Your task to perform on an android device: Go to sound settings Image 0: 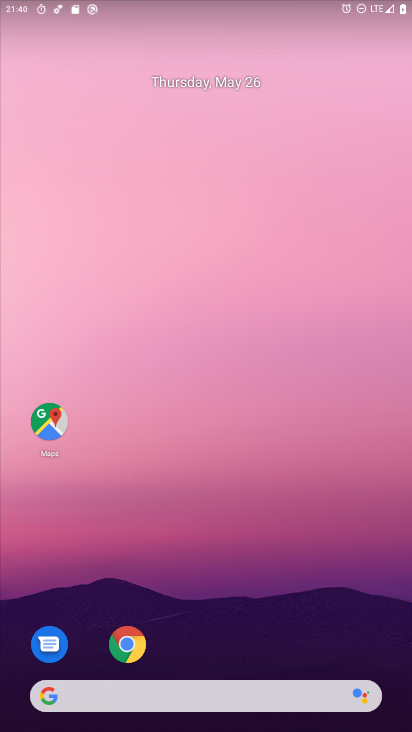
Step 0: drag from (198, 691) to (272, 271)
Your task to perform on an android device: Go to sound settings Image 1: 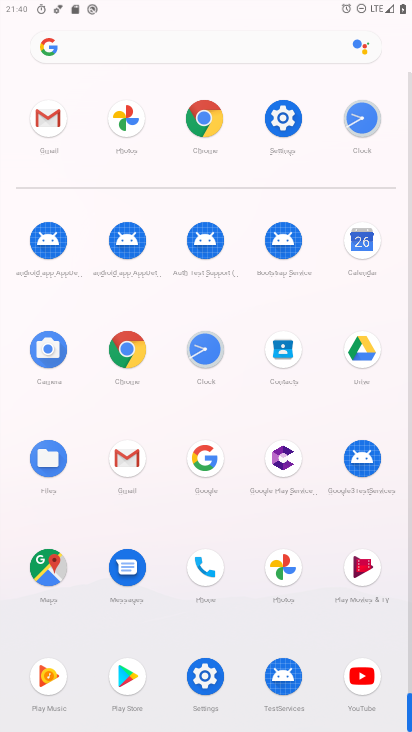
Step 1: click (280, 116)
Your task to perform on an android device: Go to sound settings Image 2: 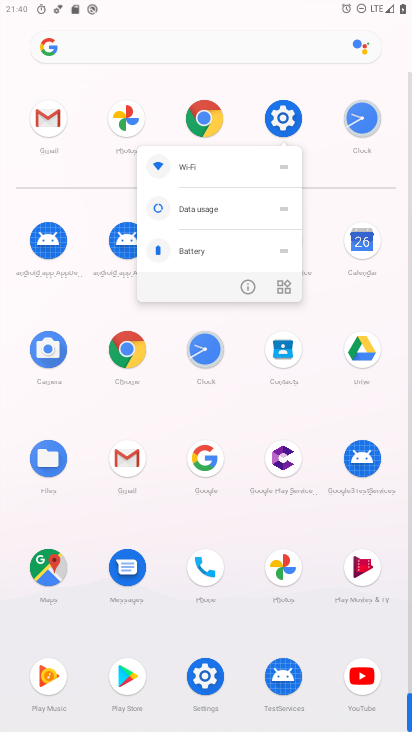
Step 2: click (249, 282)
Your task to perform on an android device: Go to sound settings Image 3: 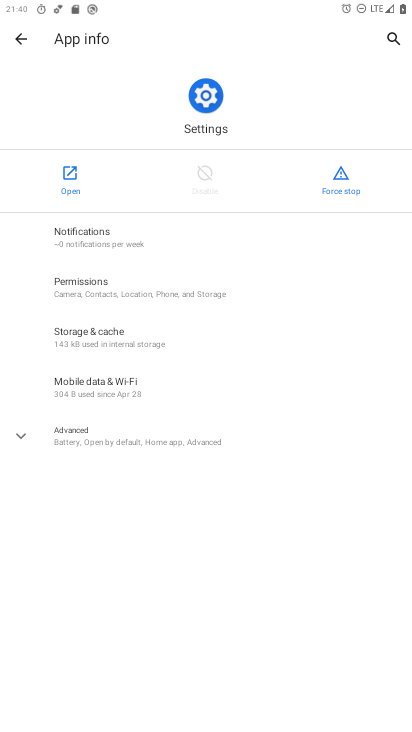
Step 3: click (68, 159)
Your task to perform on an android device: Go to sound settings Image 4: 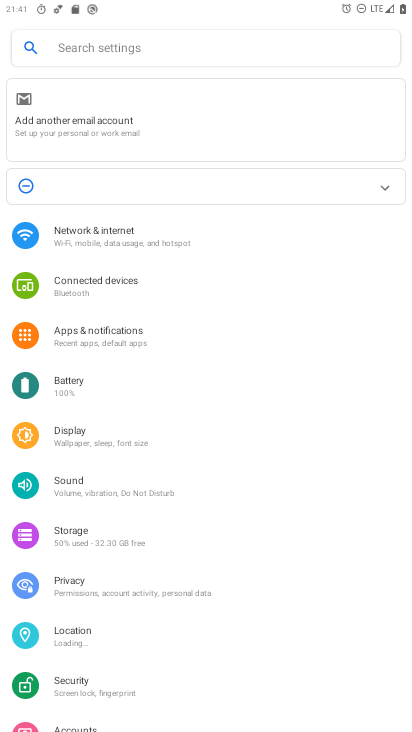
Step 4: click (106, 489)
Your task to perform on an android device: Go to sound settings Image 5: 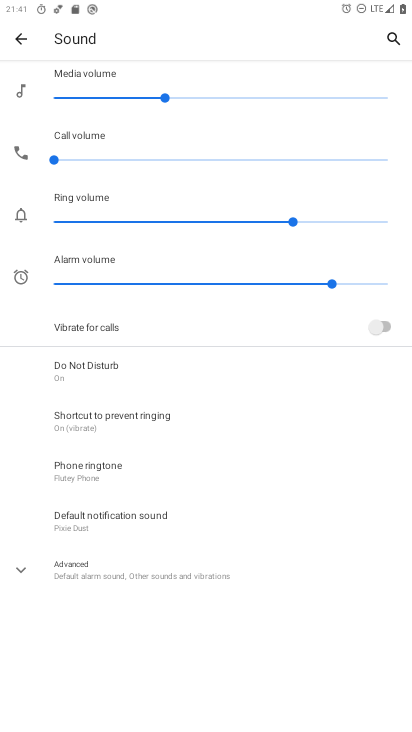
Step 5: task complete